Your task to perform on an android device: turn off translation in the chrome app Image 0: 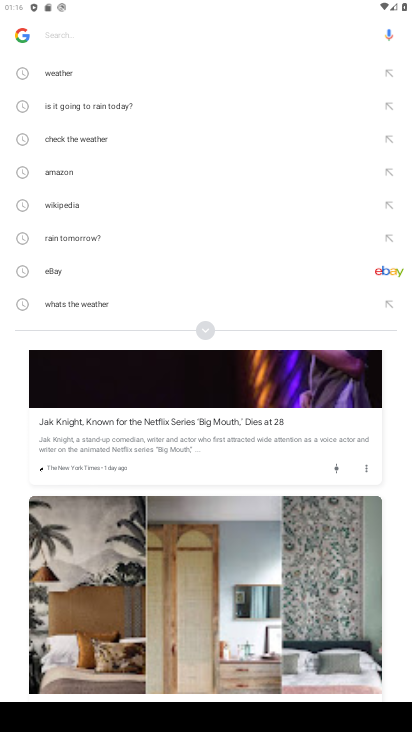
Step 0: press home button
Your task to perform on an android device: turn off translation in the chrome app Image 1: 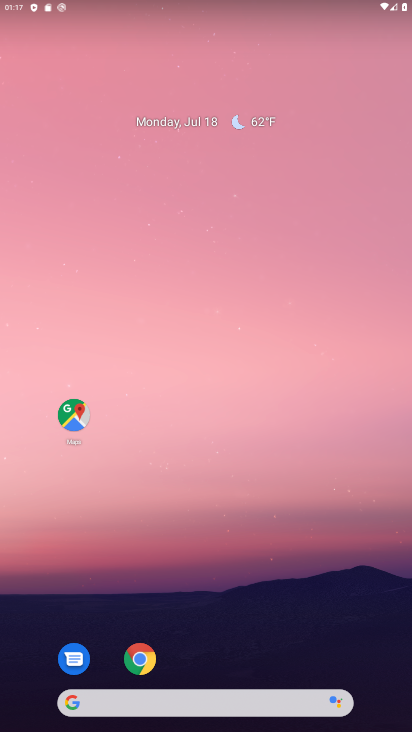
Step 1: drag from (273, 587) to (193, 62)
Your task to perform on an android device: turn off translation in the chrome app Image 2: 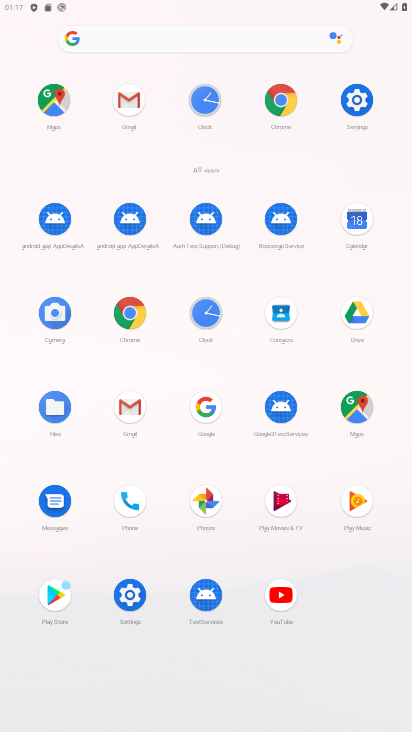
Step 2: click (133, 308)
Your task to perform on an android device: turn off translation in the chrome app Image 3: 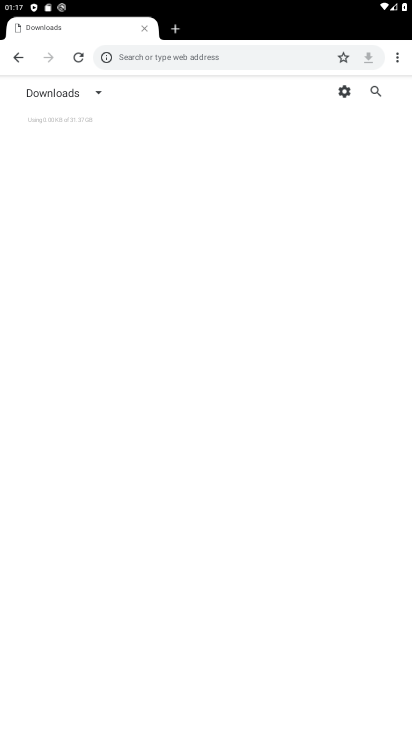
Step 3: drag from (398, 57) to (273, 259)
Your task to perform on an android device: turn off translation in the chrome app Image 4: 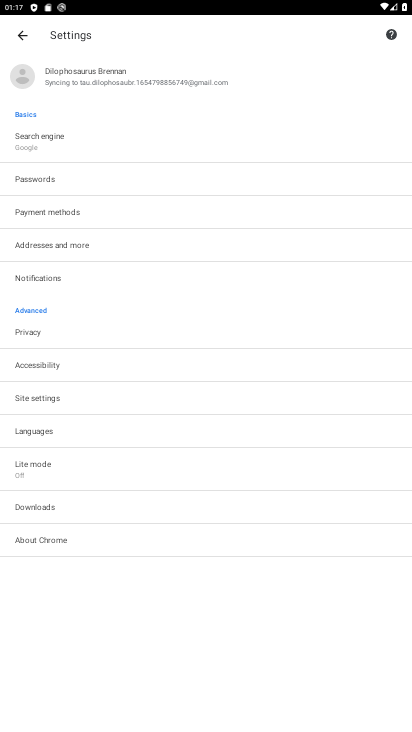
Step 4: click (22, 276)
Your task to perform on an android device: turn off translation in the chrome app Image 5: 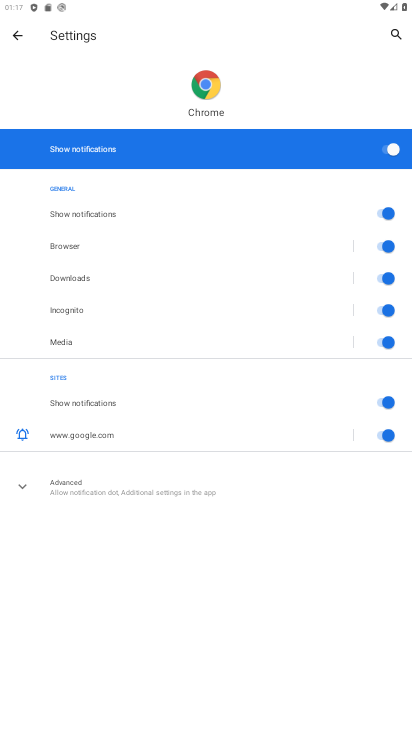
Step 5: click (380, 153)
Your task to perform on an android device: turn off translation in the chrome app Image 6: 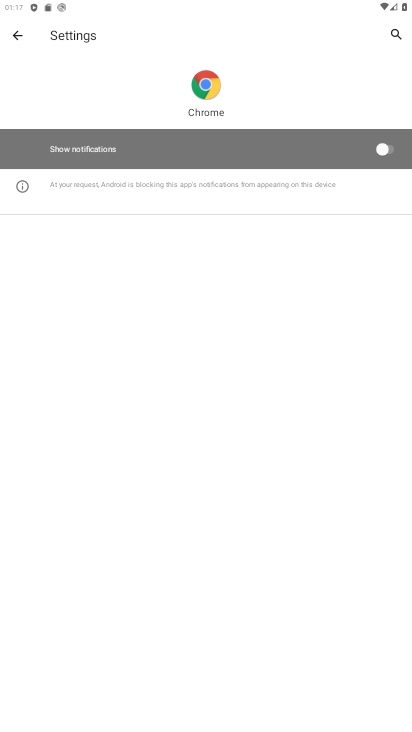
Step 6: task complete